Your task to perform on an android device: create a new album in the google photos Image 0: 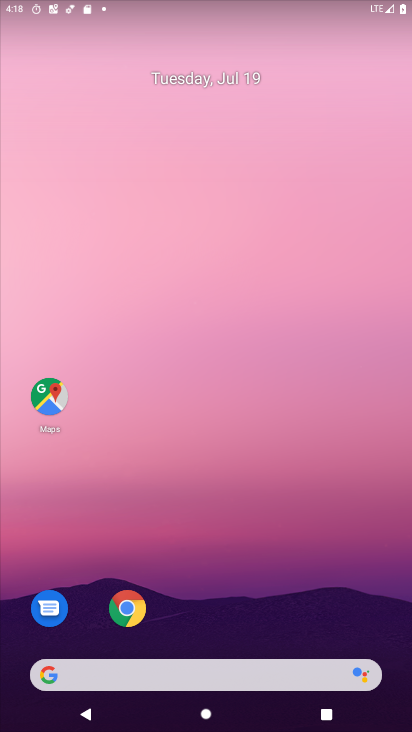
Step 0: drag from (196, 675) to (278, 240)
Your task to perform on an android device: create a new album in the google photos Image 1: 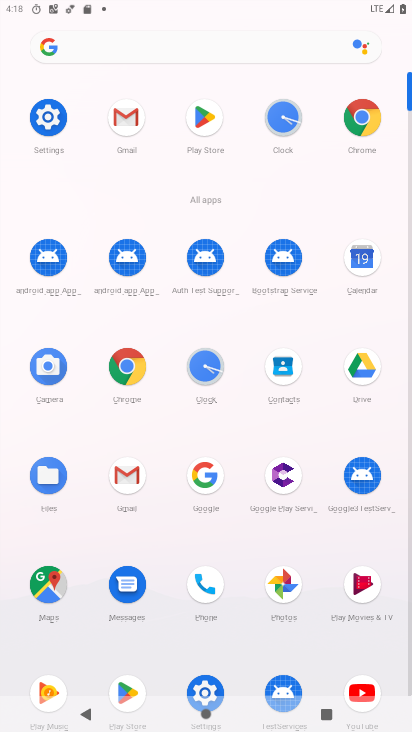
Step 1: click (284, 584)
Your task to perform on an android device: create a new album in the google photos Image 2: 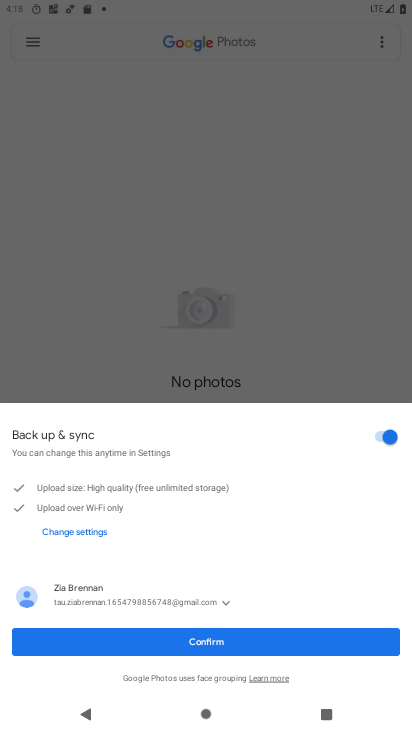
Step 2: click (205, 640)
Your task to perform on an android device: create a new album in the google photos Image 3: 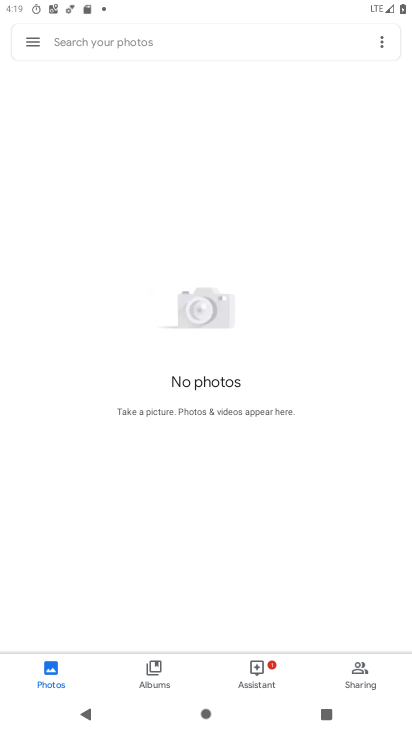
Step 3: click (383, 42)
Your task to perform on an android device: create a new album in the google photos Image 4: 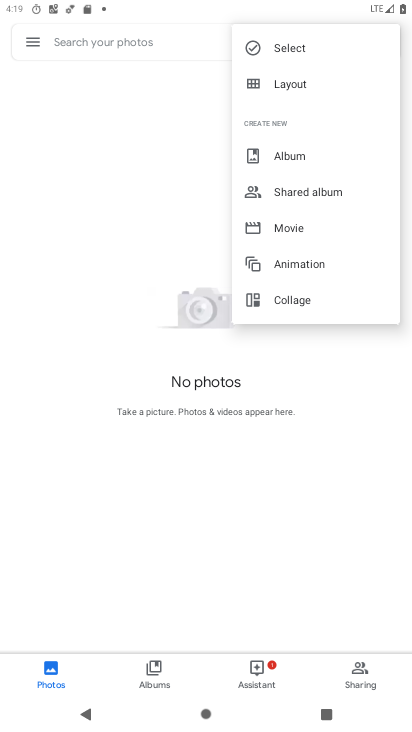
Step 4: click (292, 153)
Your task to perform on an android device: create a new album in the google photos Image 5: 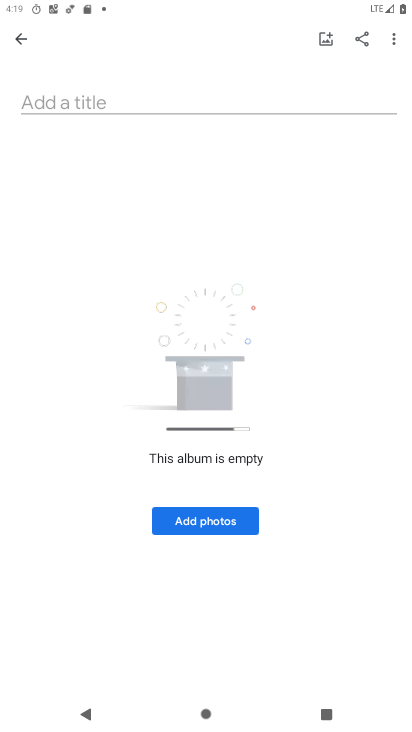
Step 5: click (216, 524)
Your task to perform on an android device: create a new album in the google photos Image 6: 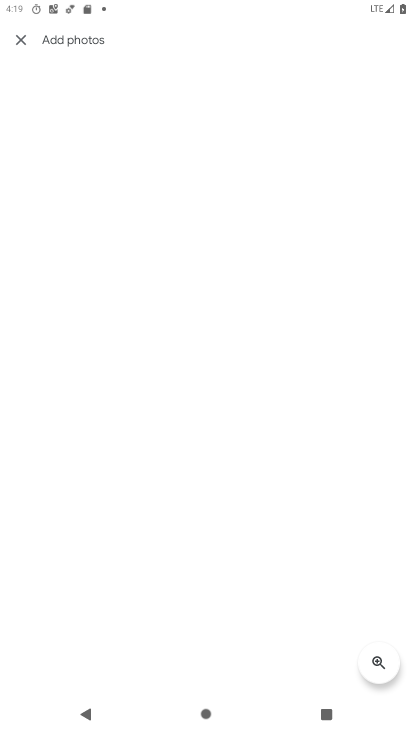
Step 6: type "HP"
Your task to perform on an android device: create a new album in the google photos Image 7: 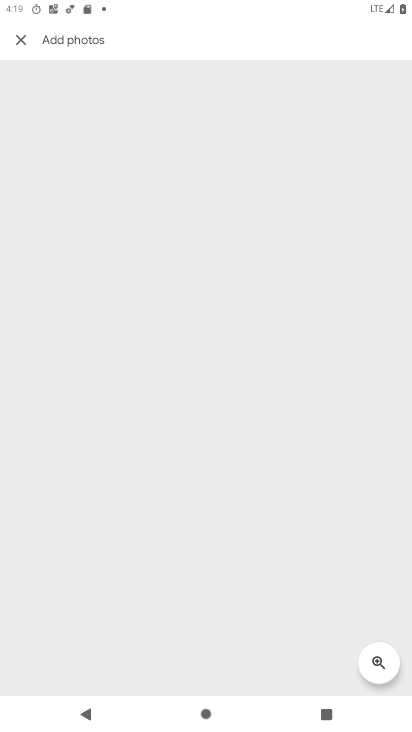
Step 7: click (376, 658)
Your task to perform on an android device: create a new album in the google photos Image 8: 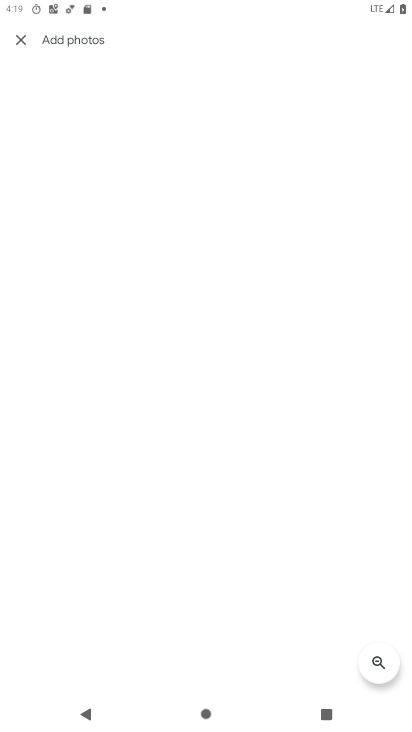
Step 8: task complete